Your task to perform on an android device: turn pop-ups off in chrome Image 0: 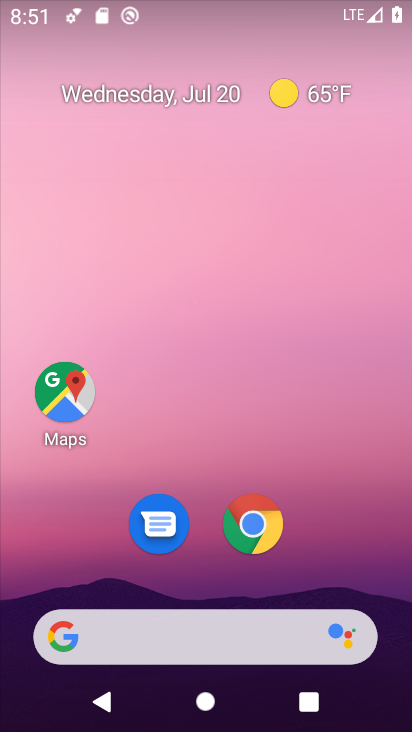
Step 0: click (257, 516)
Your task to perform on an android device: turn pop-ups off in chrome Image 1: 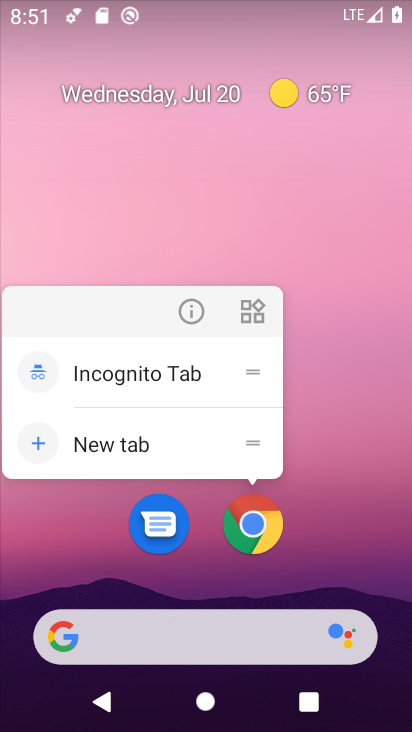
Step 1: click (194, 315)
Your task to perform on an android device: turn pop-ups off in chrome Image 2: 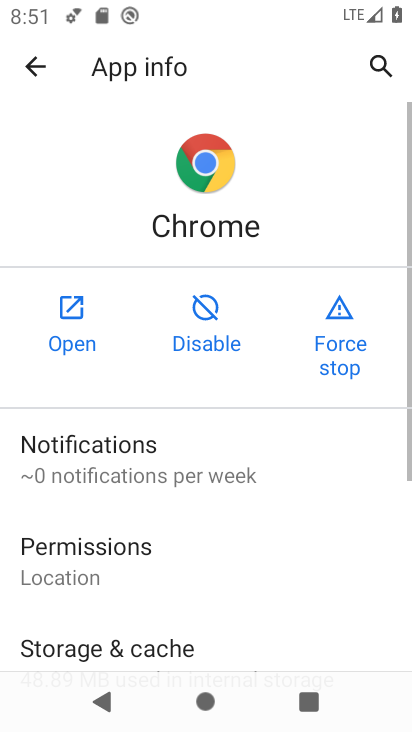
Step 2: drag from (202, 543) to (267, 44)
Your task to perform on an android device: turn pop-ups off in chrome Image 3: 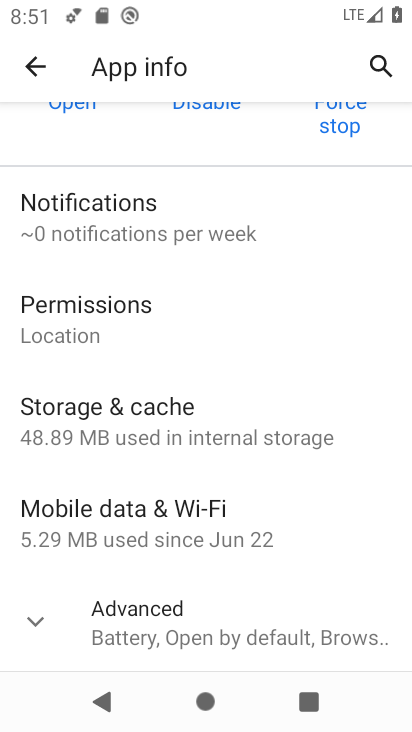
Step 3: click (39, 610)
Your task to perform on an android device: turn pop-ups off in chrome Image 4: 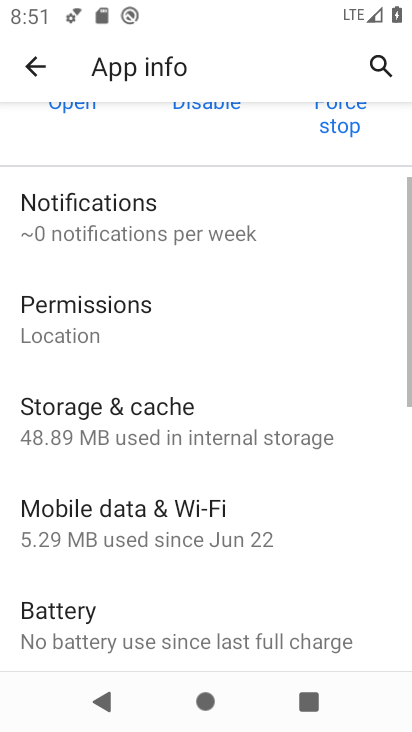
Step 4: drag from (232, 555) to (336, 134)
Your task to perform on an android device: turn pop-ups off in chrome Image 5: 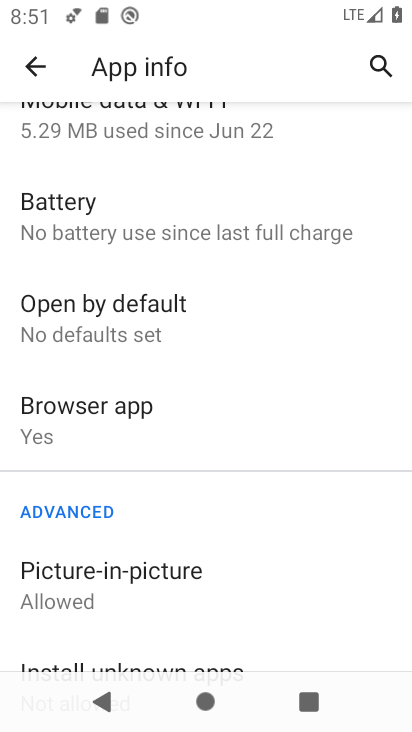
Step 5: click (149, 571)
Your task to perform on an android device: turn pop-ups off in chrome Image 6: 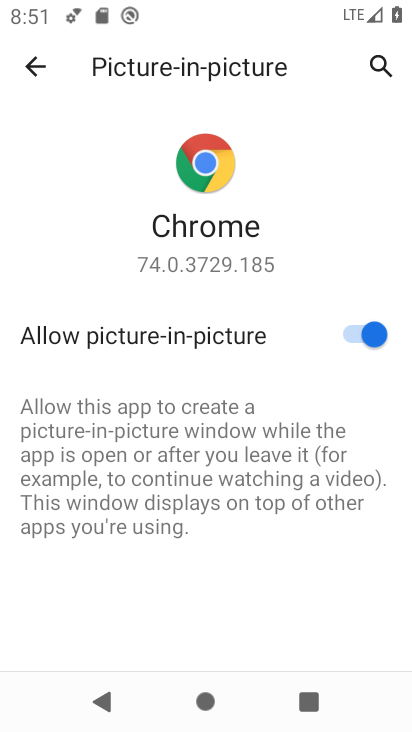
Step 6: click (362, 332)
Your task to perform on an android device: turn pop-ups off in chrome Image 7: 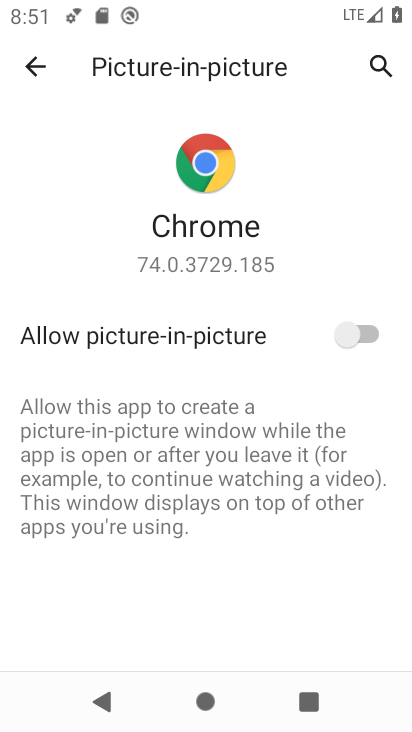
Step 7: task complete